Your task to perform on an android device: turn off notifications settings in the gmail app Image 0: 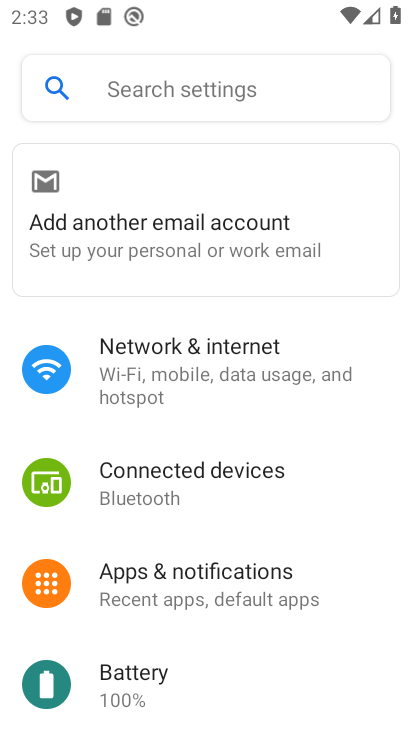
Step 0: press home button
Your task to perform on an android device: turn off notifications settings in the gmail app Image 1: 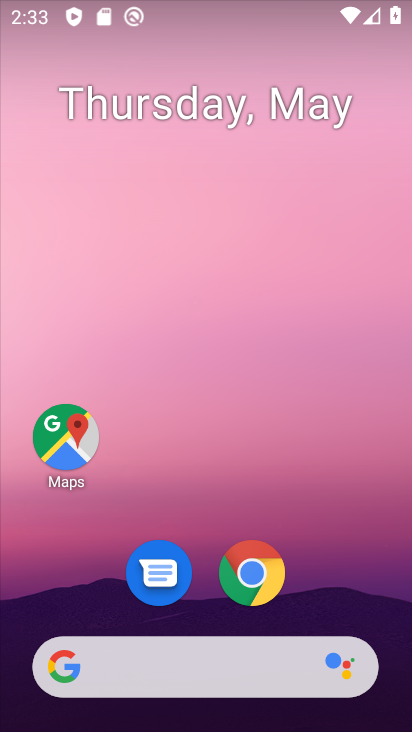
Step 1: drag from (255, 640) to (256, 238)
Your task to perform on an android device: turn off notifications settings in the gmail app Image 2: 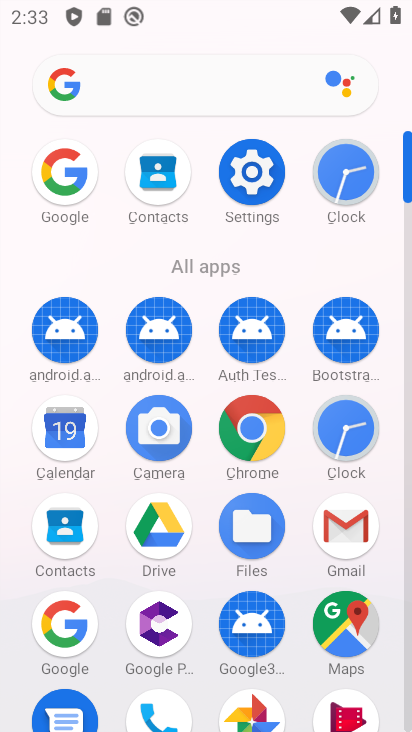
Step 2: click (347, 529)
Your task to perform on an android device: turn off notifications settings in the gmail app Image 3: 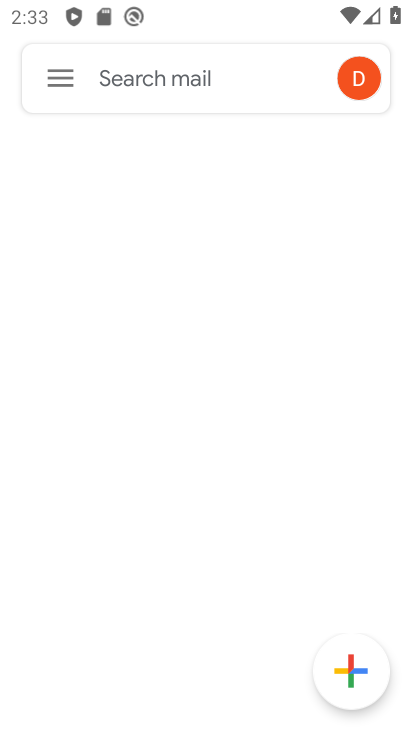
Step 3: click (51, 60)
Your task to perform on an android device: turn off notifications settings in the gmail app Image 4: 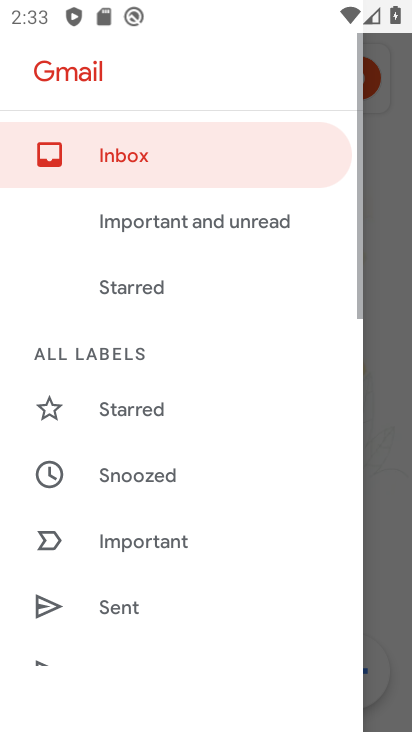
Step 4: drag from (103, 630) to (128, 272)
Your task to perform on an android device: turn off notifications settings in the gmail app Image 5: 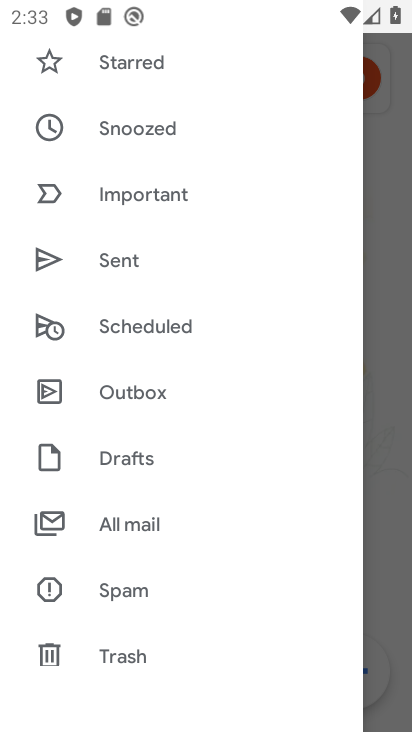
Step 5: drag from (140, 671) to (156, 366)
Your task to perform on an android device: turn off notifications settings in the gmail app Image 6: 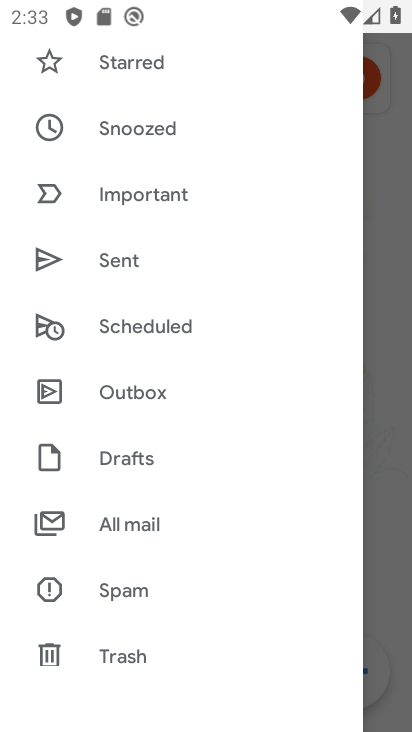
Step 6: drag from (110, 627) to (126, 373)
Your task to perform on an android device: turn off notifications settings in the gmail app Image 7: 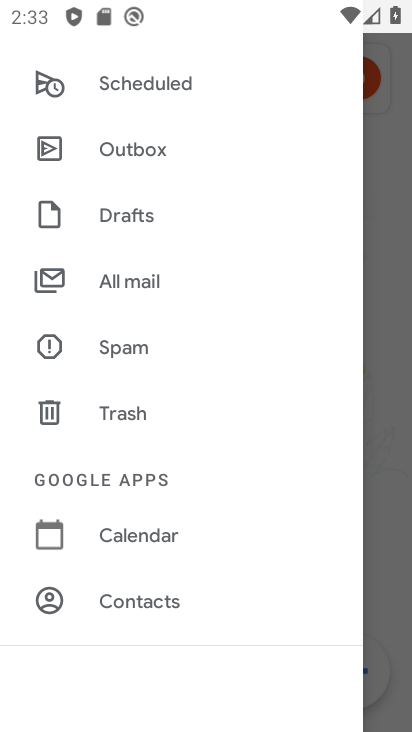
Step 7: drag from (137, 620) to (149, 333)
Your task to perform on an android device: turn off notifications settings in the gmail app Image 8: 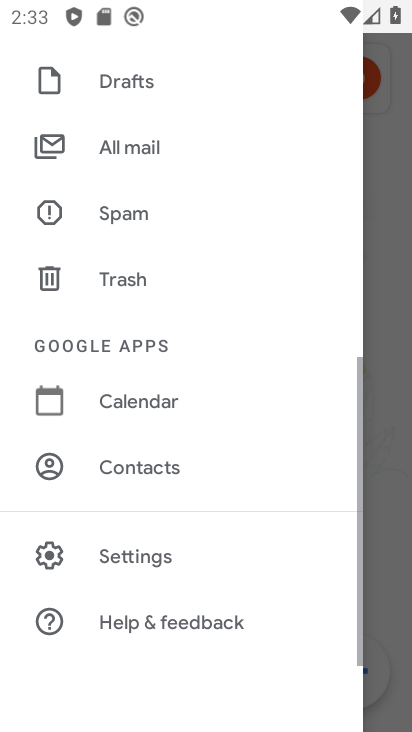
Step 8: click (133, 551)
Your task to perform on an android device: turn off notifications settings in the gmail app Image 9: 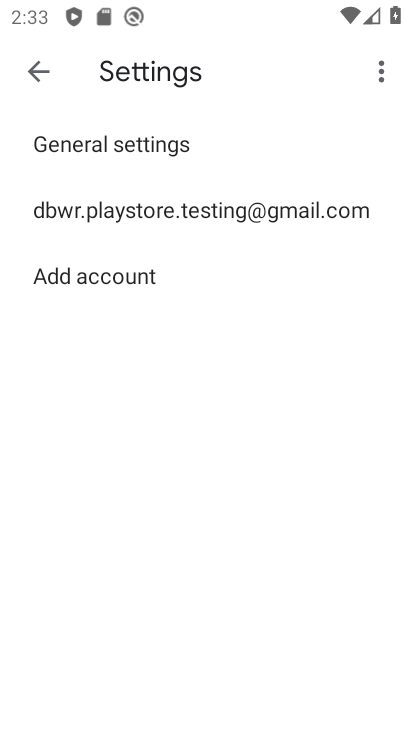
Step 9: click (213, 205)
Your task to perform on an android device: turn off notifications settings in the gmail app Image 10: 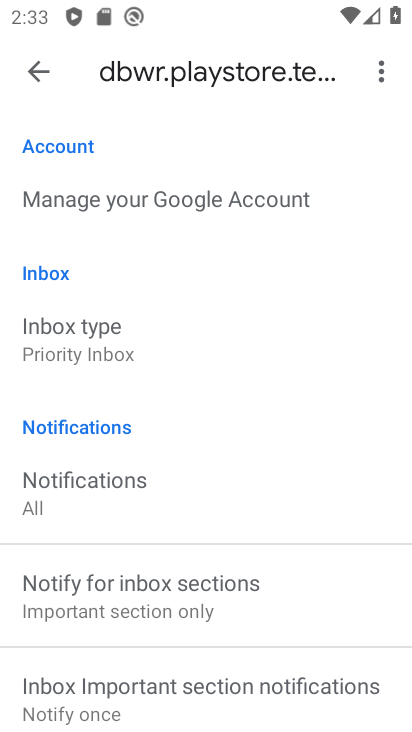
Step 10: click (24, 65)
Your task to perform on an android device: turn off notifications settings in the gmail app Image 11: 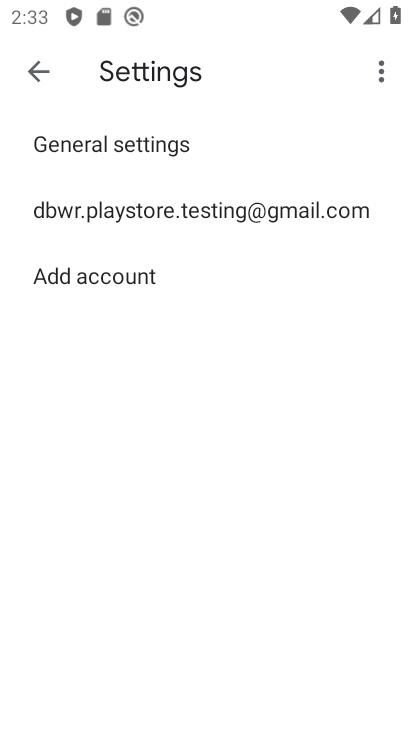
Step 11: click (130, 135)
Your task to perform on an android device: turn off notifications settings in the gmail app Image 12: 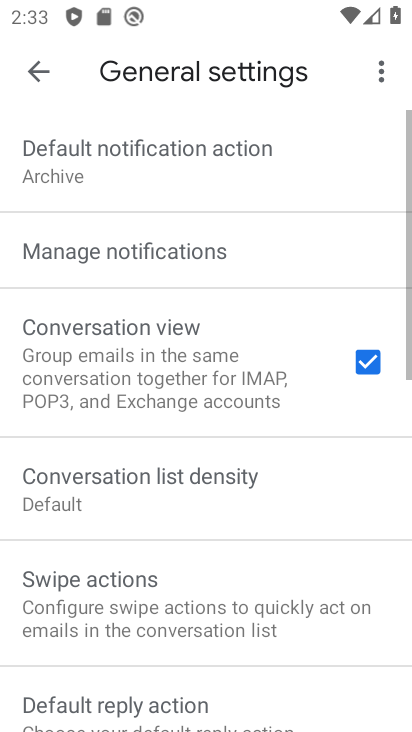
Step 12: click (143, 267)
Your task to perform on an android device: turn off notifications settings in the gmail app Image 13: 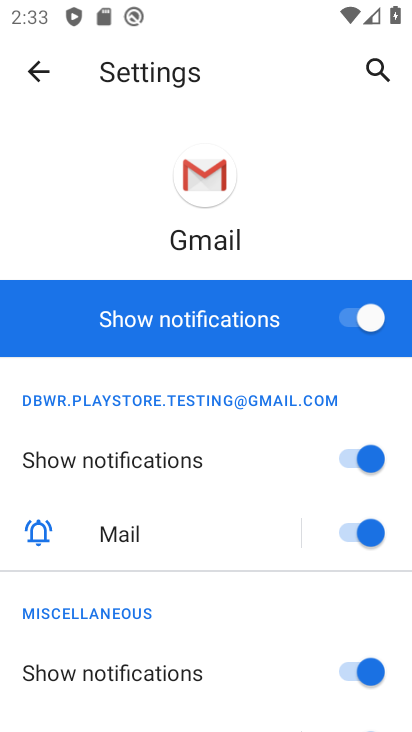
Step 13: click (354, 315)
Your task to perform on an android device: turn off notifications settings in the gmail app Image 14: 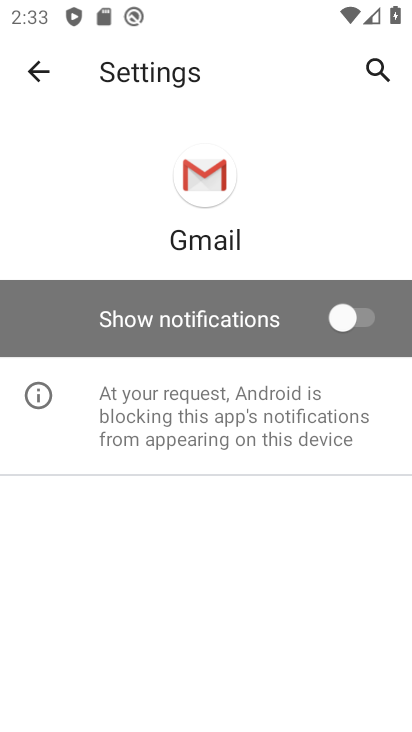
Step 14: task complete